Your task to perform on an android device: snooze an email in the gmail app Image 0: 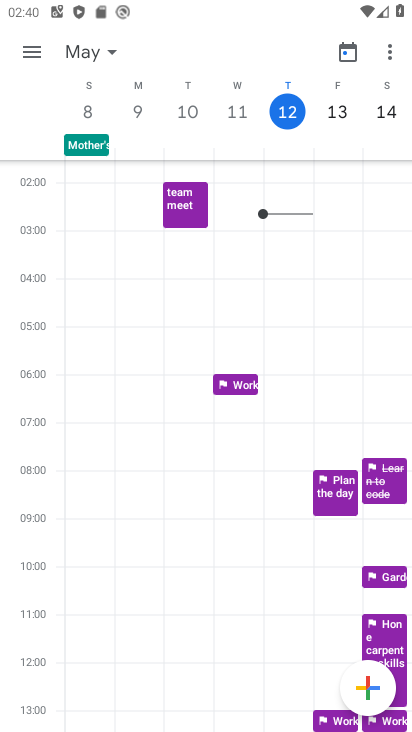
Step 0: press home button
Your task to perform on an android device: snooze an email in the gmail app Image 1: 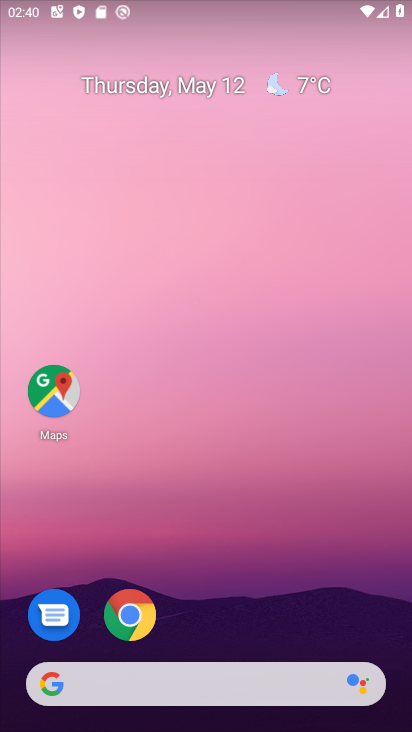
Step 1: drag from (165, 728) to (165, 220)
Your task to perform on an android device: snooze an email in the gmail app Image 2: 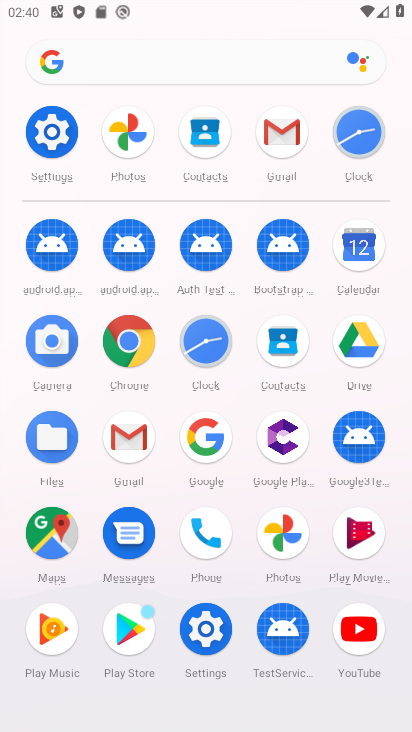
Step 2: click (270, 140)
Your task to perform on an android device: snooze an email in the gmail app Image 3: 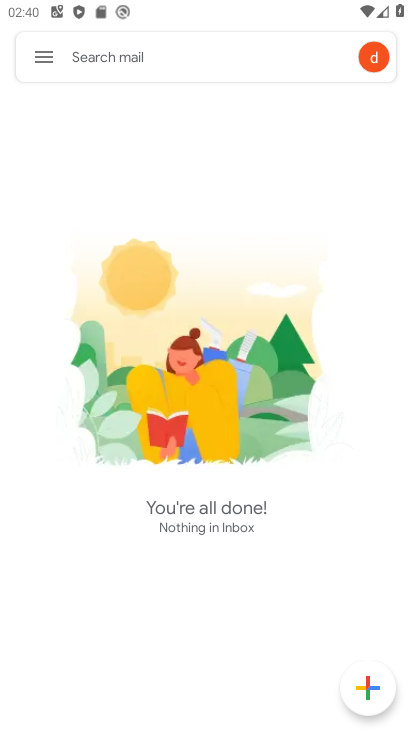
Step 3: click (49, 50)
Your task to perform on an android device: snooze an email in the gmail app Image 4: 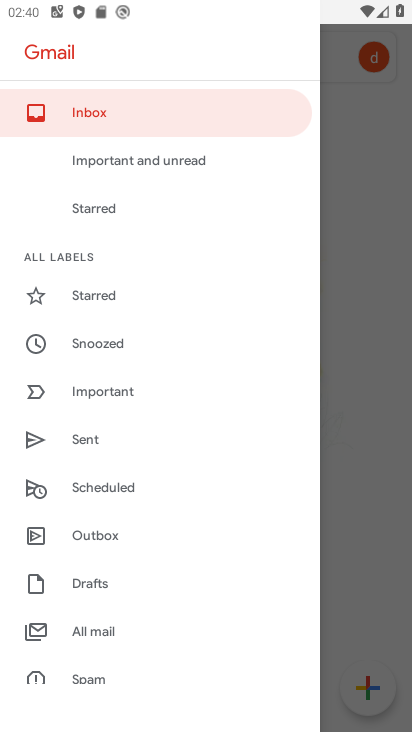
Step 4: click (133, 633)
Your task to perform on an android device: snooze an email in the gmail app Image 5: 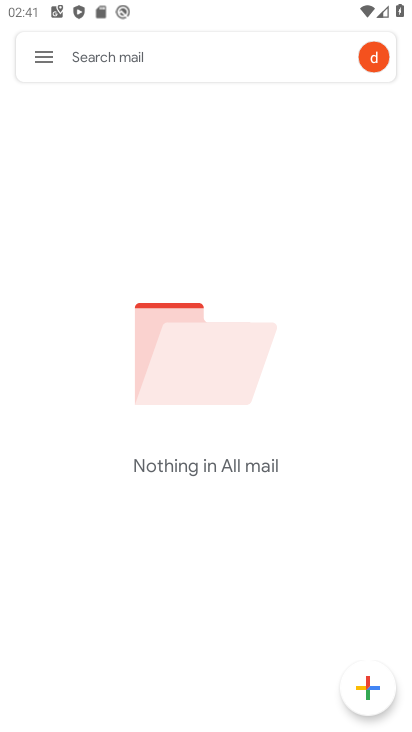
Step 5: task complete